Your task to perform on an android device: Open my contact list Image 0: 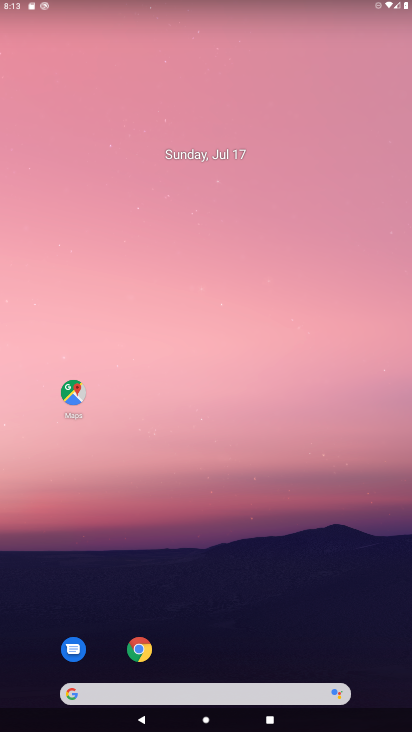
Step 0: drag from (202, 589) to (150, 42)
Your task to perform on an android device: Open my contact list Image 1: 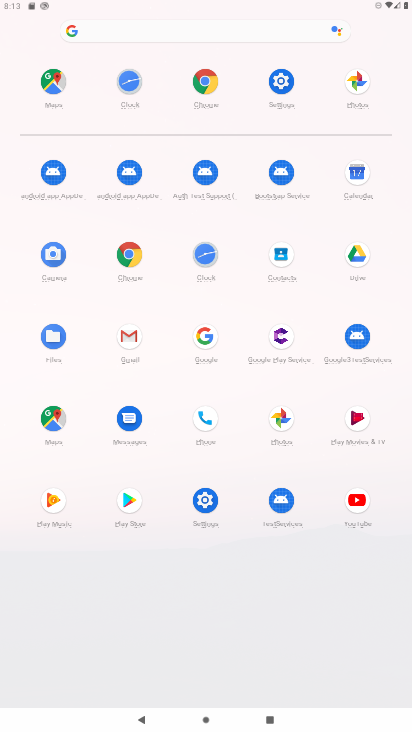
Step 1: click (202, 421)
Your task to perform on an android device: Open my contact list Image 2: 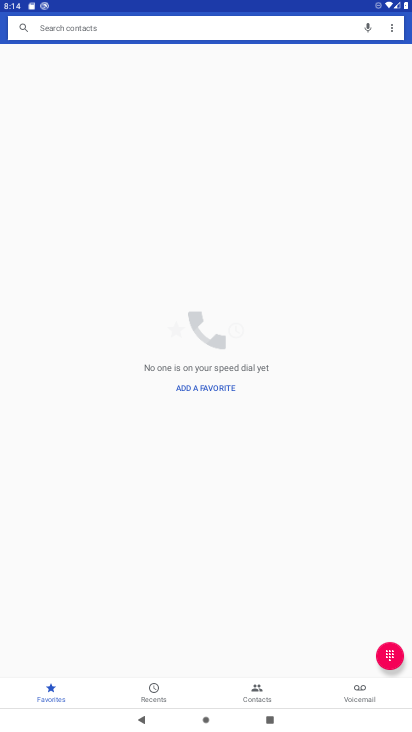
Step 2: click (252, 695)
Your task to perform on an android device: Open my contact list Image 3: 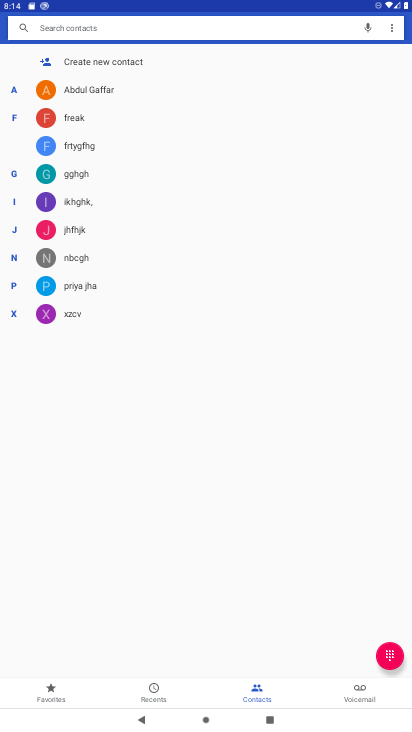
Step 3: task complete